Your task to perform on an android device: What's on my calendar tomorrow? Image 0: 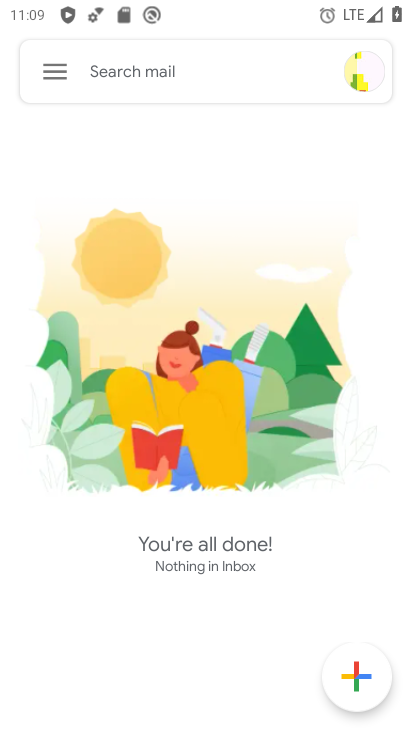
Step 0: press home button
Your task to perform on an android device: What's on my calendar tomorrow? Image 1: 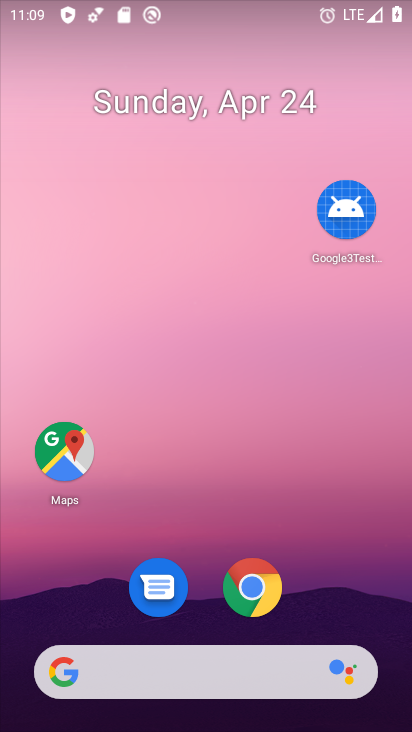
Step 1: drag from (324, 531) to (276, 245)
Your task to perform on an android device: What's on my calendar tomorrow? Image 2: 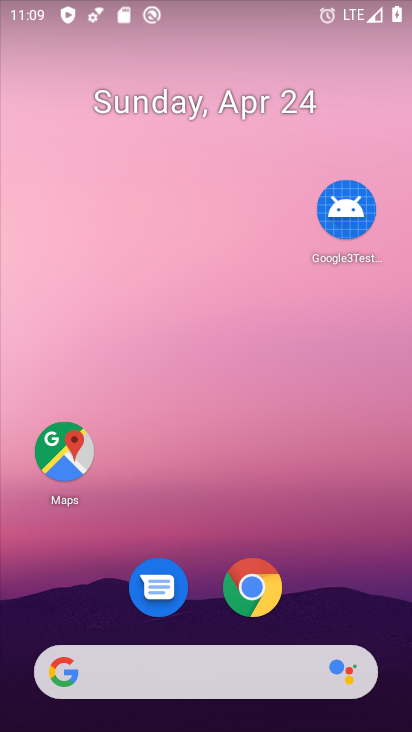
Step 2: drag from (293, 560) to (270, 240)
Your task to perform on an android device: What's on my calendar tomorrow? Image 3: 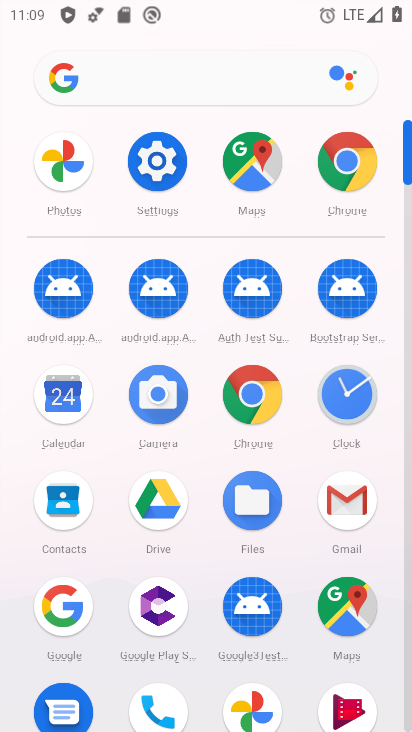
Step 3: click (71, 410)
Your task to perform on an android device: What's on my calendar tomorrow? Image 4: 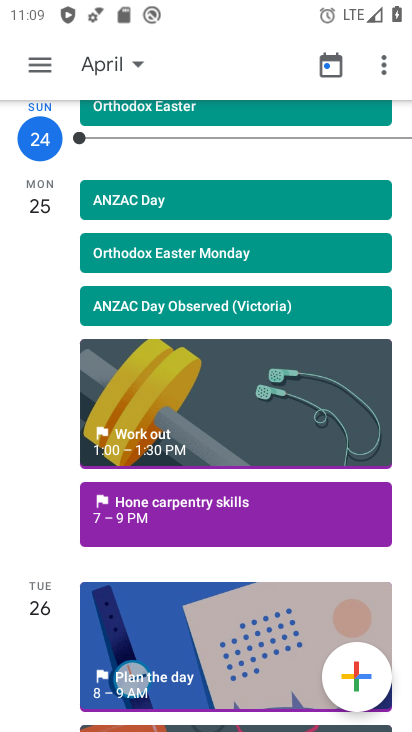
Step 4: task complete